Your task to perform on an android device: Open sound settings Image 0: 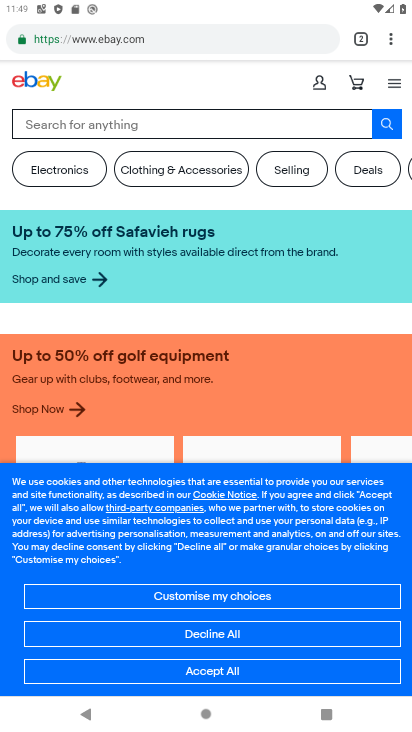
Step 0: press home button
Your task to perform on an android device: Open sound settings Image 1: 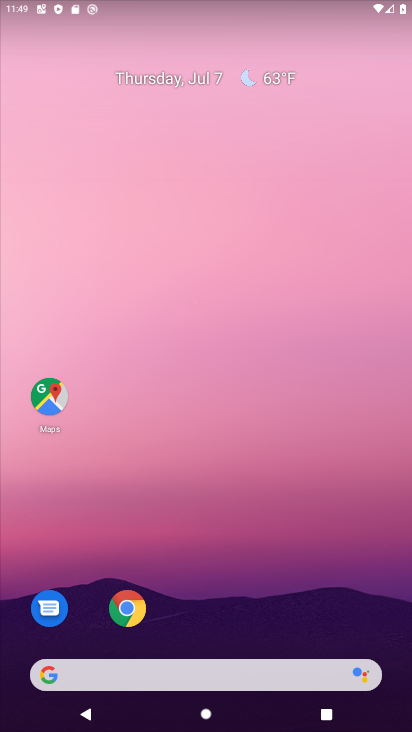
Step 1: drag from (49, 598) to (309, 123)
Your task to perform on an android device: Open sound settings Image 2: 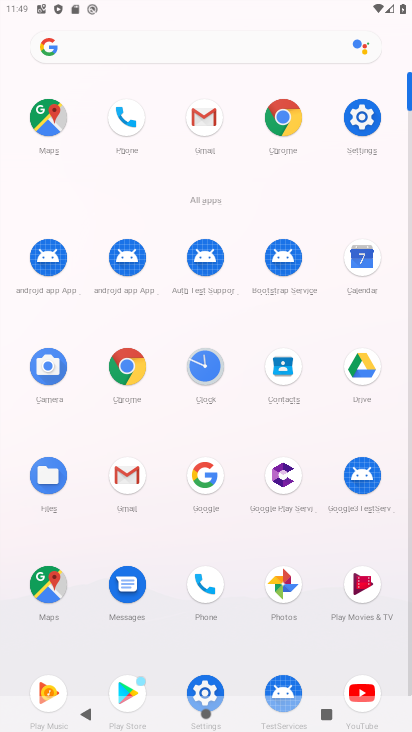
Step 2: click (382, 120)
Your task to perform on an android device: Open sound settings Image 3: 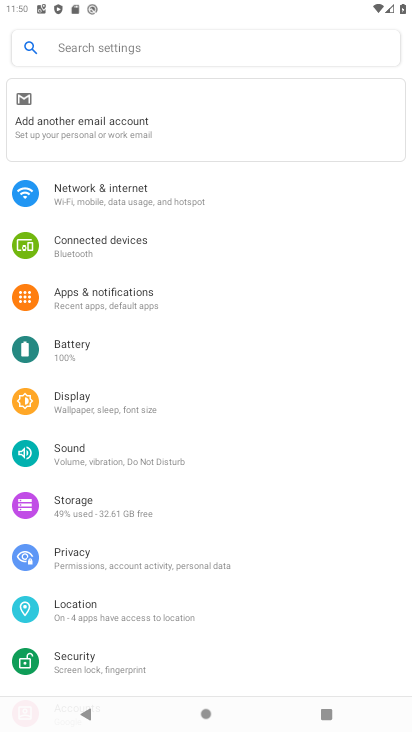
Step 3: drag from (121, 614) to (291, 173)
Your task to perform on an android device: Open sound settings Image 4: 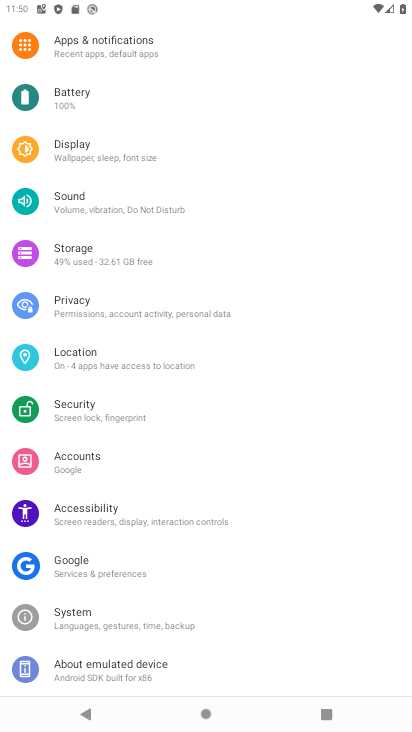
Step 4: click (163, 194)
Your task to perform on an android device: Open sound settings Image 5: 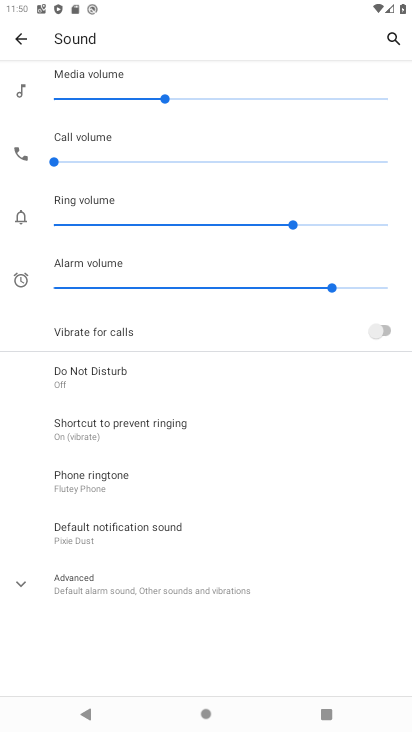
Step 5: task complete